Your task to perform on an android device: delete location history Image 0: 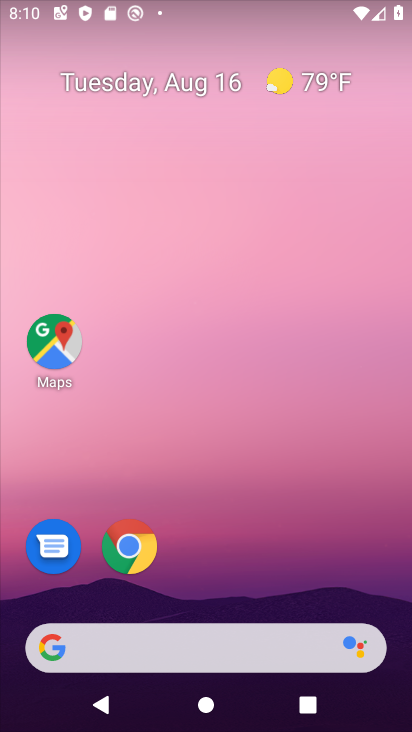
Step 0: drag from (193, 533) to (184, 1)
Your task to perform on an android device: delete location history Image 1: 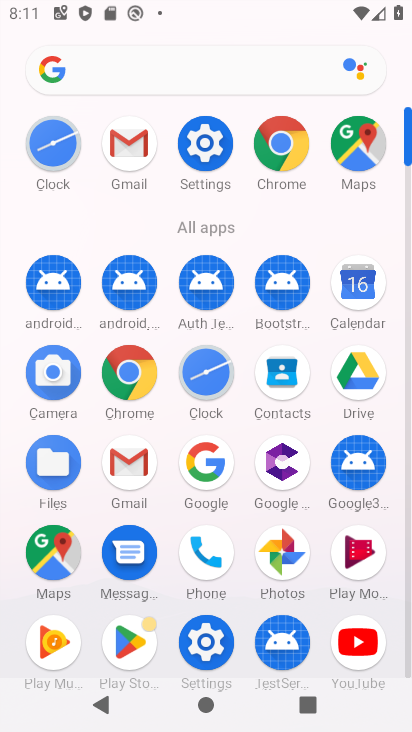
Step 1: click (363, 143)
Your task to perform on an android device: delete location history Image 2: 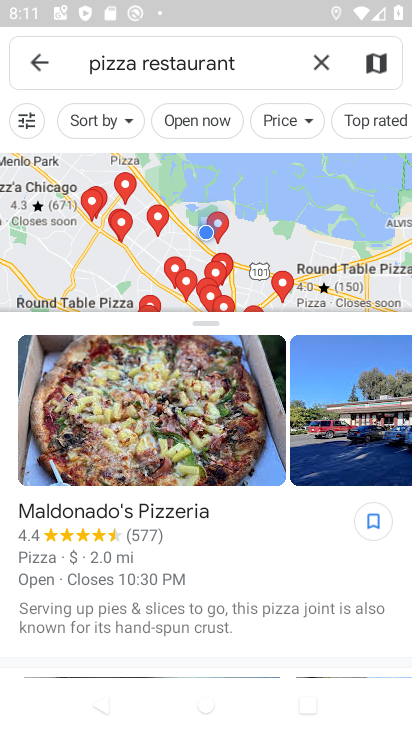
Step 2: click (39, 57)
Your task to perform on an android device: delete location history Image 3: 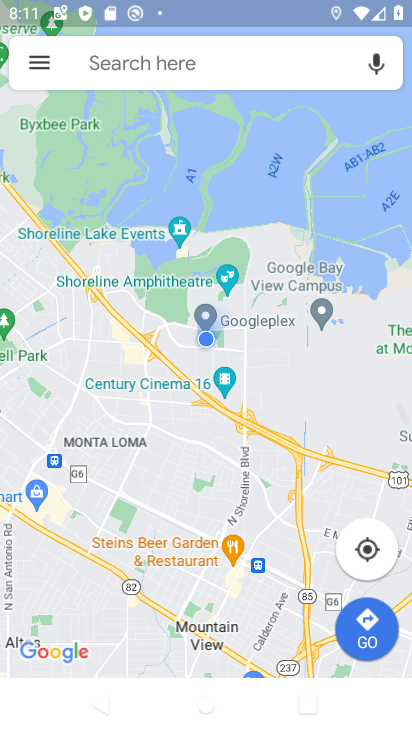
Step 3: click (39, 65)
Your task to perform on an android device: delete location history Image 4: 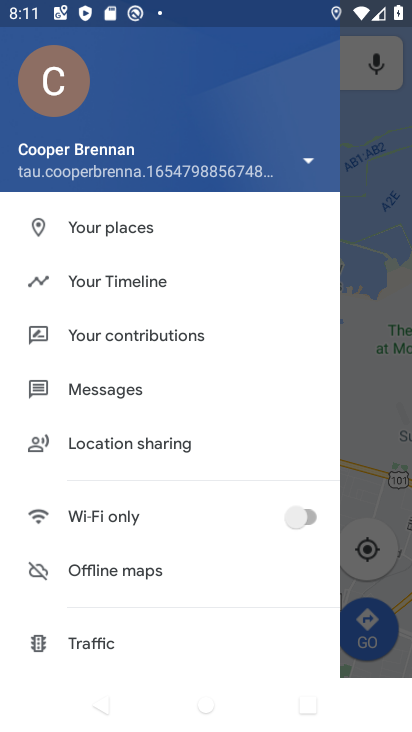
Step 4: click (96, 288)
Your task to perform on an android device: delete location history Image 5: 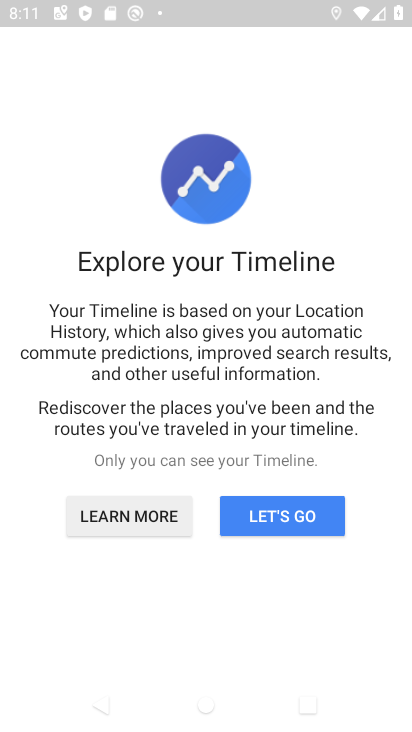
Step 5: click (268, 507)
Your task to perform on an android device: delete location history Image 6: 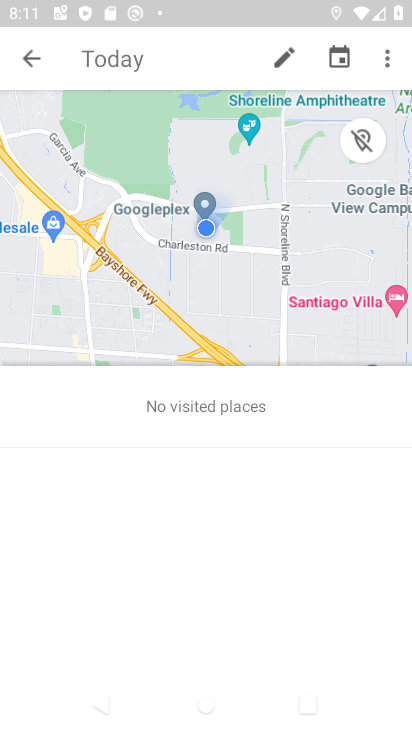
Step 6: click (384, 65)
Your task to perform on an android device: delete location history Image 7: 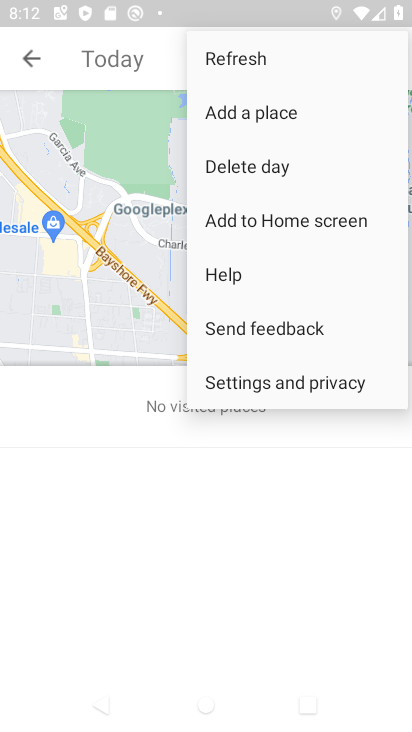
Step 7: click (265, 389)
Your task to perform on an android device: delete location history Image 8: 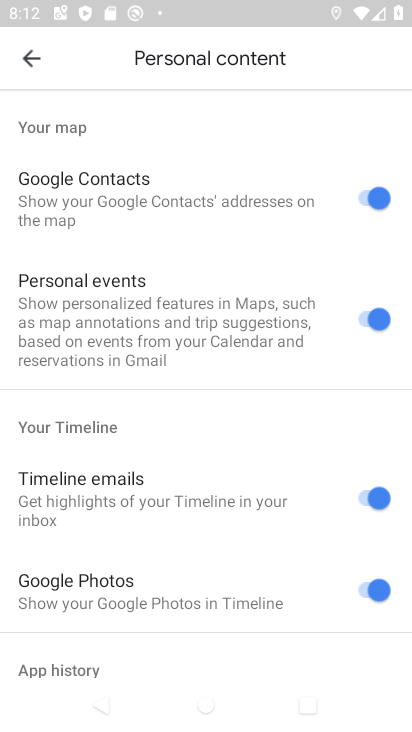
Step 8: drag from (171, 584) to (172, 446)
Your task to perform on an android device: delete location history Image 9: 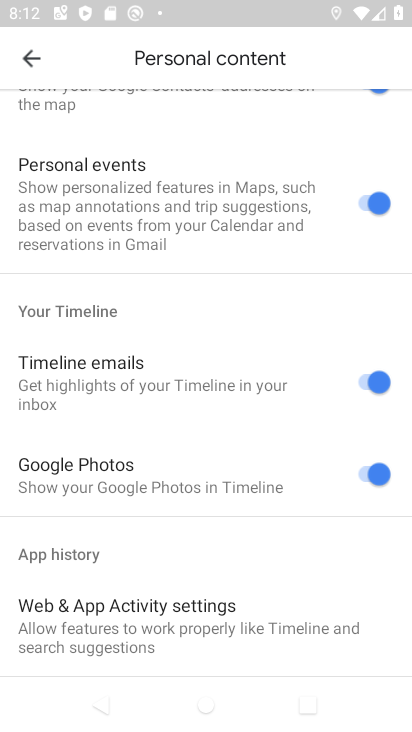
Step 9: click (196, 561)
Your task to perform on an android device: delete location history Image 10: 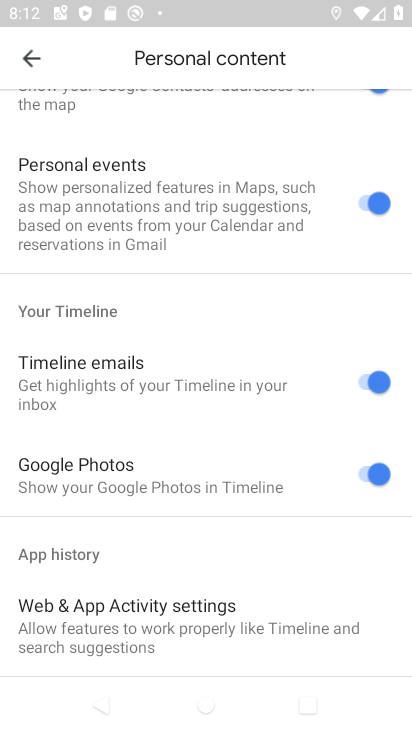
Step 10: click (213, 572)
Your task to perform on an android device: delete location history Image 11: 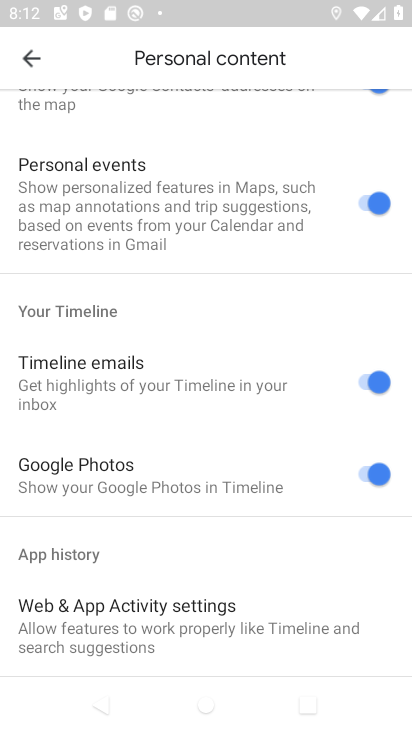
Step 11: drag from (174, 592) to (218, 103)
Your task to perform on an android device: delete location history Image 12: 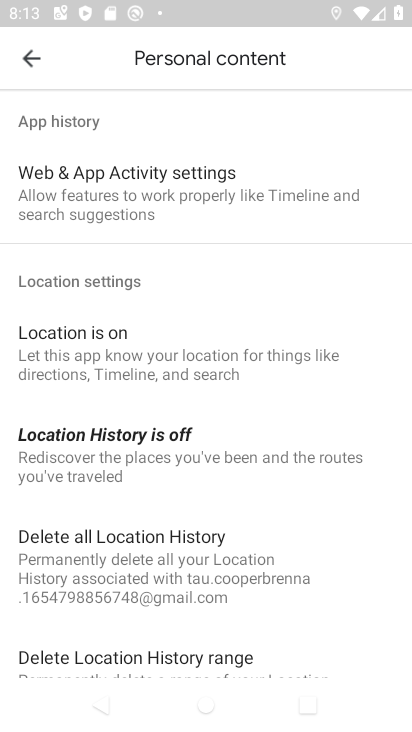
Step 12: click (143, 563)
Your task to perform on an android device: delete location history Image 13: 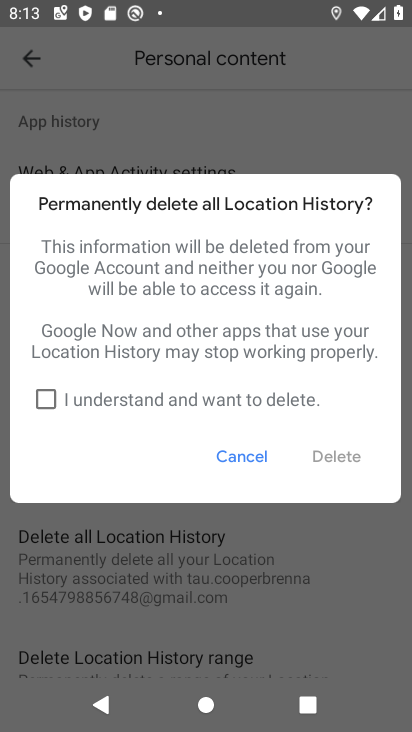
Step 13: click (41, 406)
Your task to perform on an android device: delete location history Image 14: 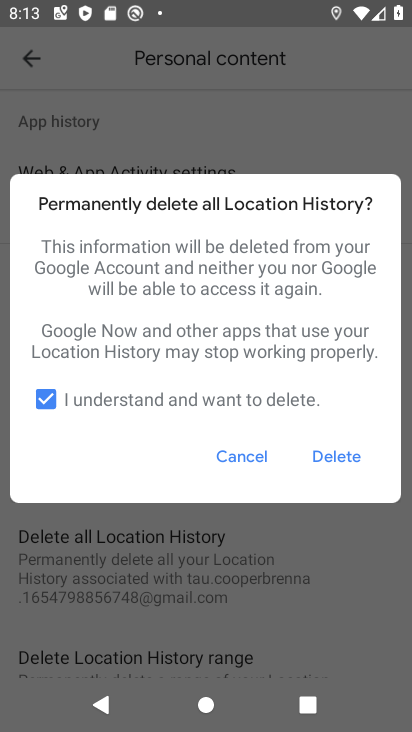
Step 14: click (333, 451)
Your task to perform on an android device: delete location history Image 15: 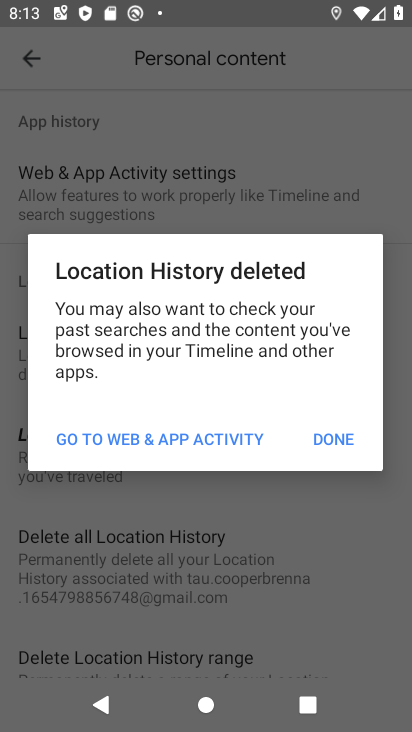
Step 15: click (328, 424)
Your task to perform on an android device: delete location history Image 16: 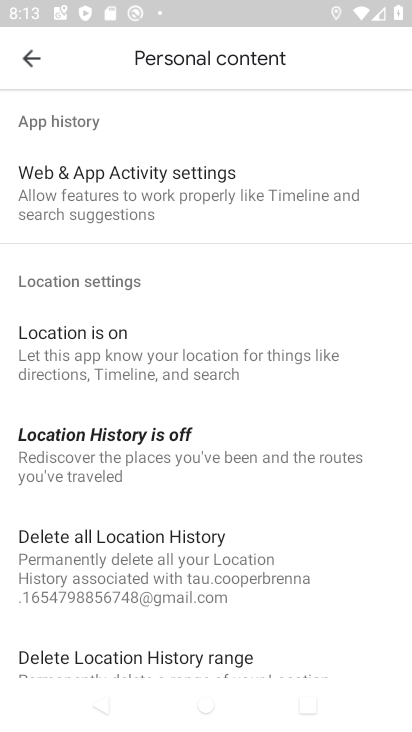
Step 16: task complete